Your task to perform on an android device: find which apps use the phone's location Image 0: 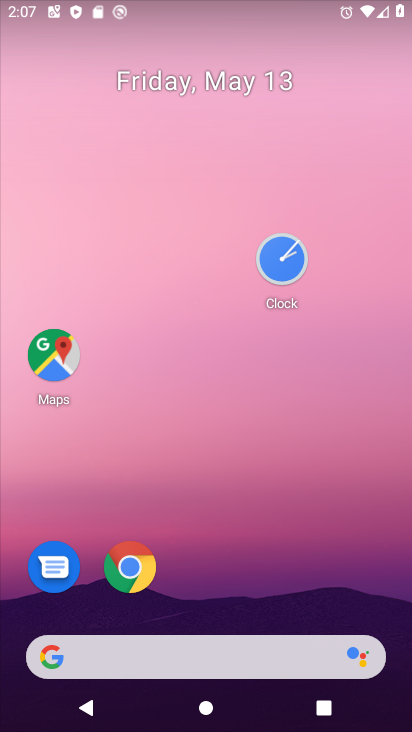
Step 0: drag from (243, 579) to (0, 7)
Your task to perform on an android device: find which apps use the phone's location Image 1: 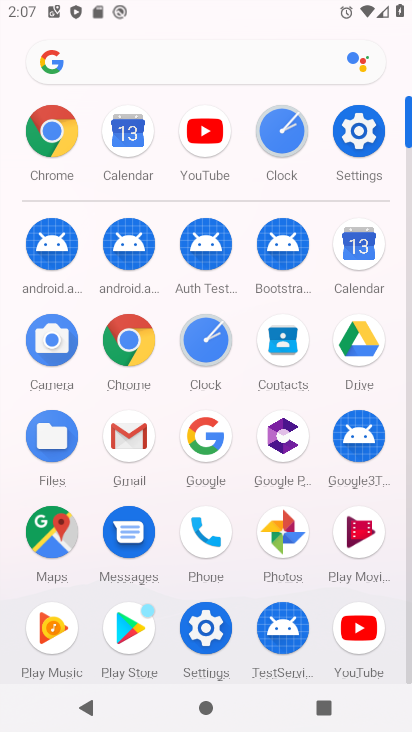
Step 1: click (350, 153)
Your task to perform on an android device: find which apps use the phone's location Image 2: 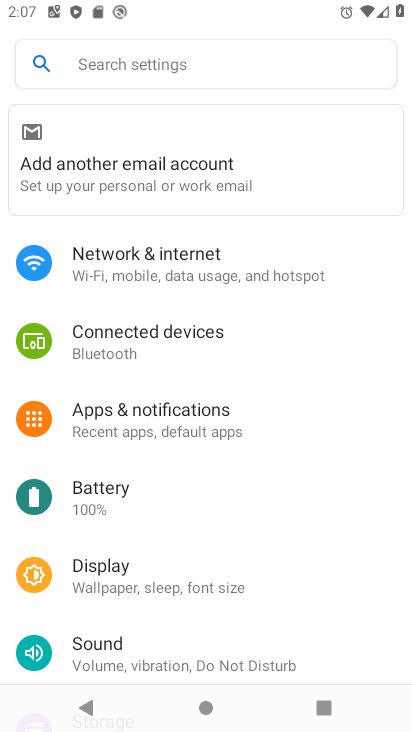
Step 2: click (229, 564)
Your task to perform on an android device: find which apps use the phone's location Image 3: 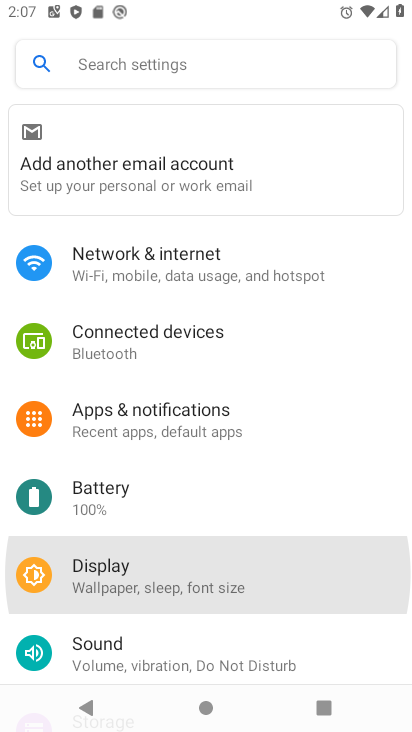
Step 3: click (230, 561)
Your task to perform on an android device: find which apps use the phone's location Image 4: 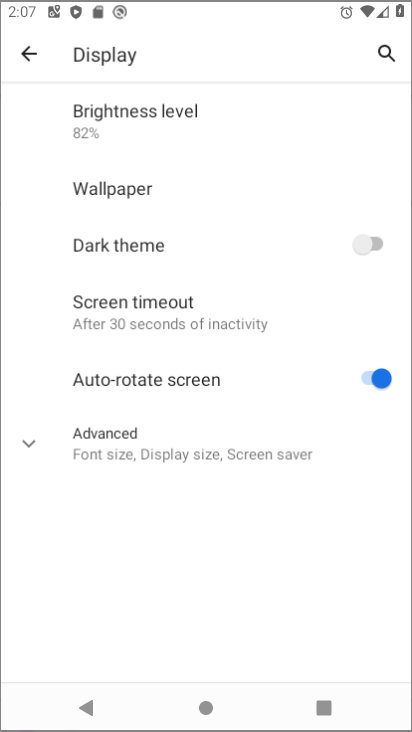
Step 4: drag from (230, 560) to (217, 464)
Your task to perform on an android device: find which apps use the phone's location Image 5: 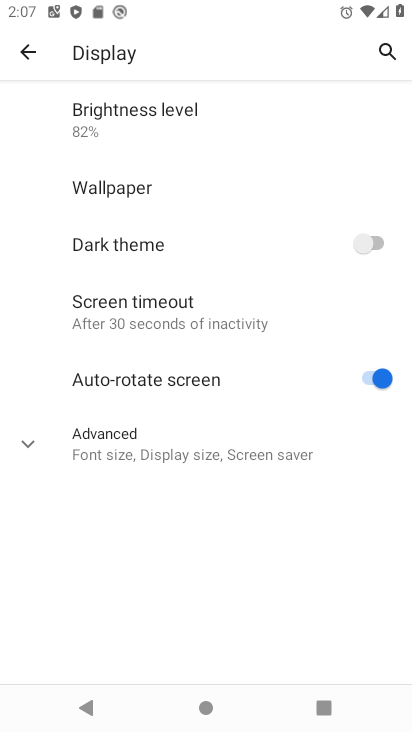
Step 5: click (30, 48)
Your task to perform on an android device: find which apps use the phone's location Image 6: 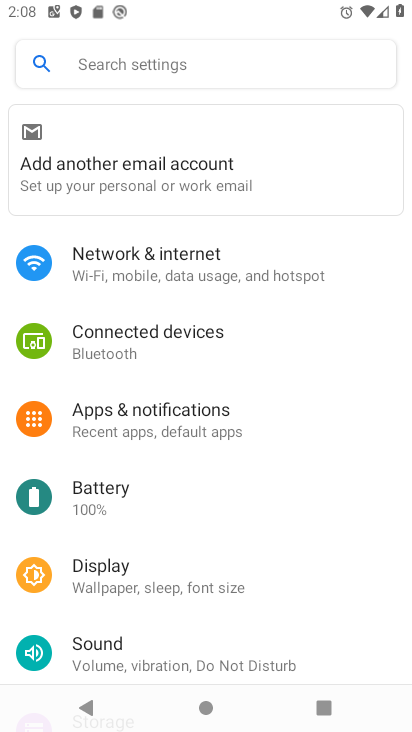
Step 6: drag from (211, 611) to (208, 288)
Your task to perform on an android device: find which apps use the phone's location Image 7: 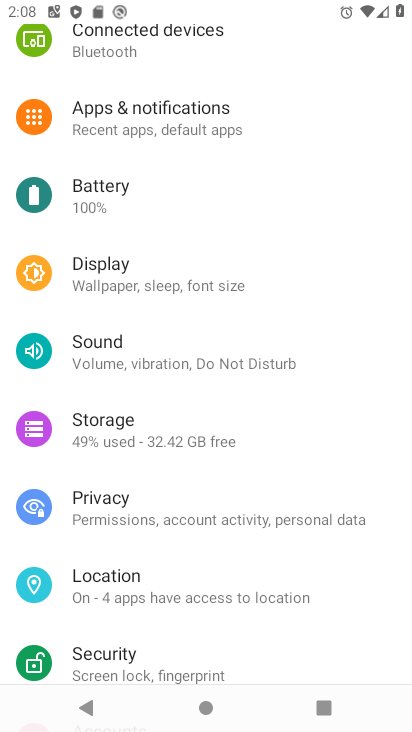
Step 7: drag from (251, 590) to (251, 455)
Your task to perform on an android device: find which apps use the phone's location Image 8: 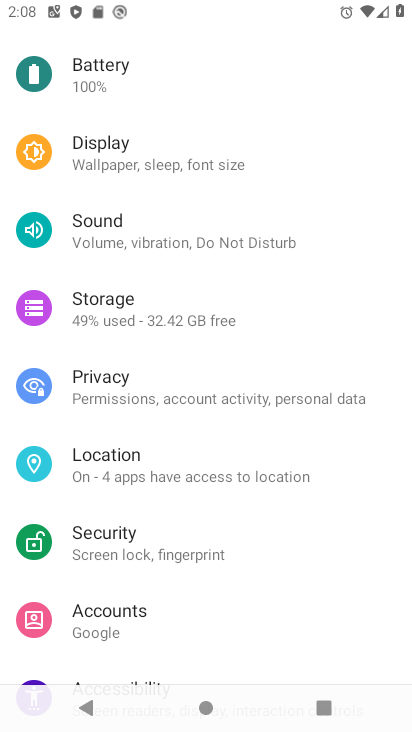
Step 8: click (177, 459)
Your task to perform on an android device: find which apps use the phone's location Image 9: 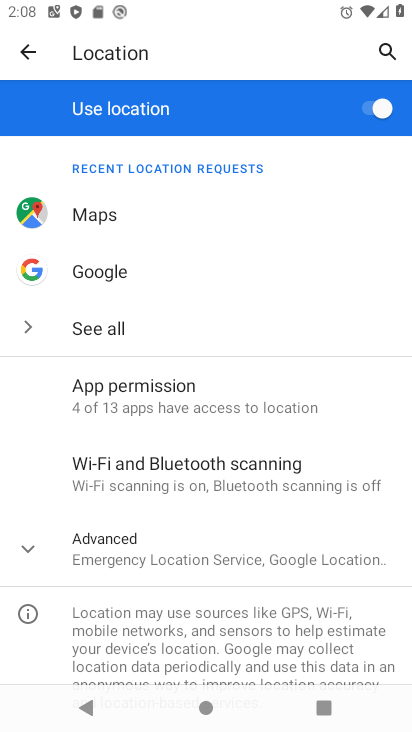
Step 9: click (228, 386)
Your task to perform on an android device: find which apps use the phone's location Image 10: 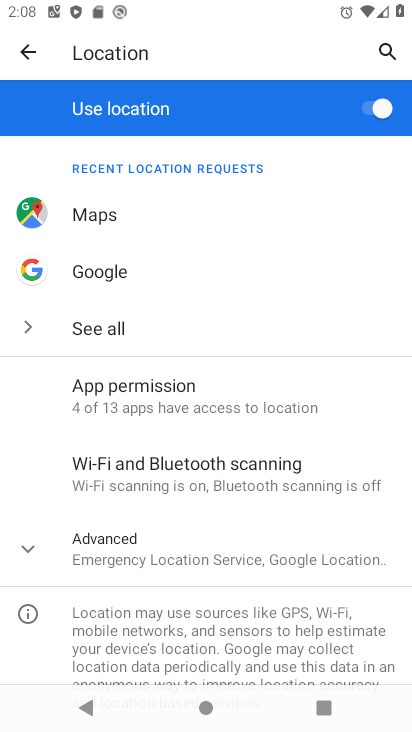
Step 10: task complete